Your task to perform on an android device: toggle airplane mode Image 0: 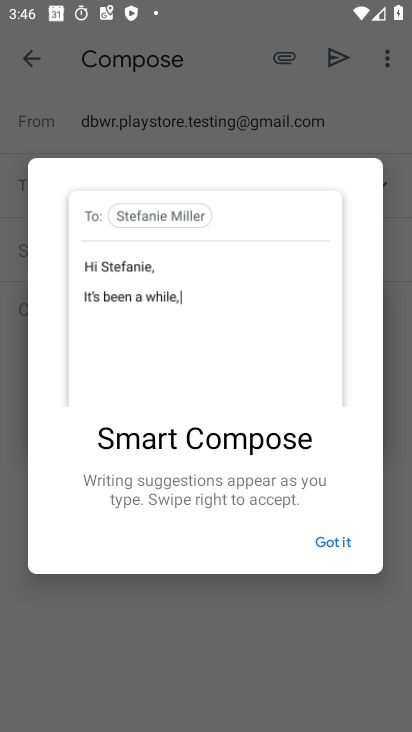
Step 0: press home button
Your task to perform on an android device: toggle airplane mode Image 1: 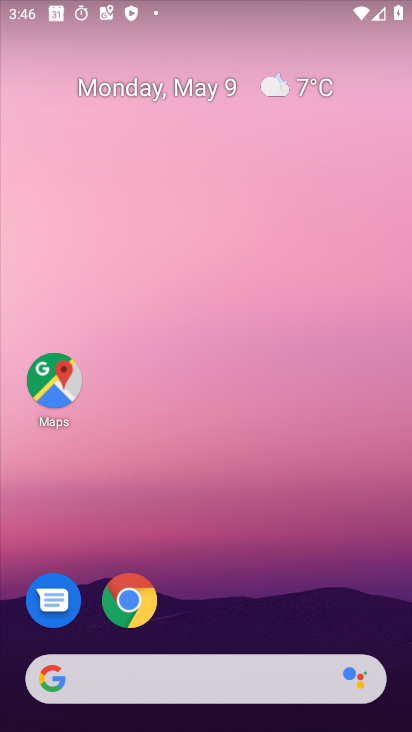
Step 1: drag from (258, 1) to (247, 380)
Your task to perform on an android device: toggle airplane mode Image 2: 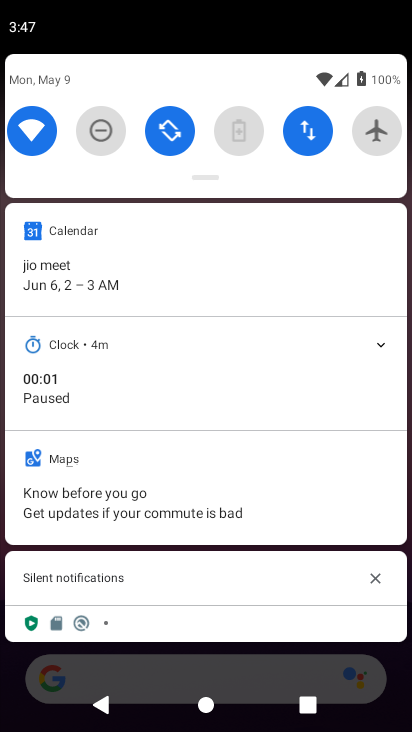
Step 2: click (384, 127)
Your task to perform on an android device: toggle airplane mode Image 3: 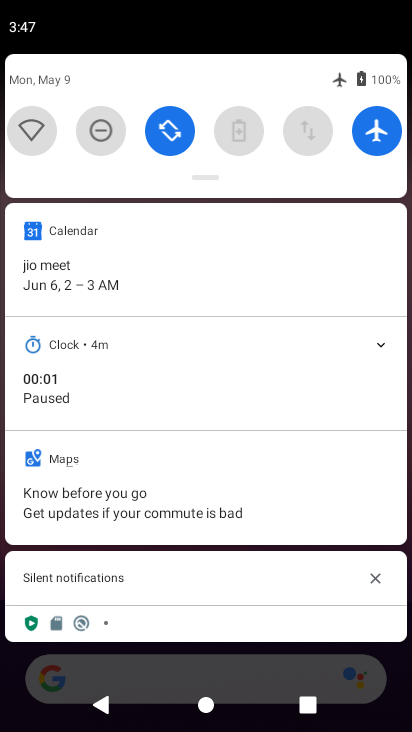
Step 3: task complete